Your task to perform on an android device: Do I have any events this weekend? Image 0: 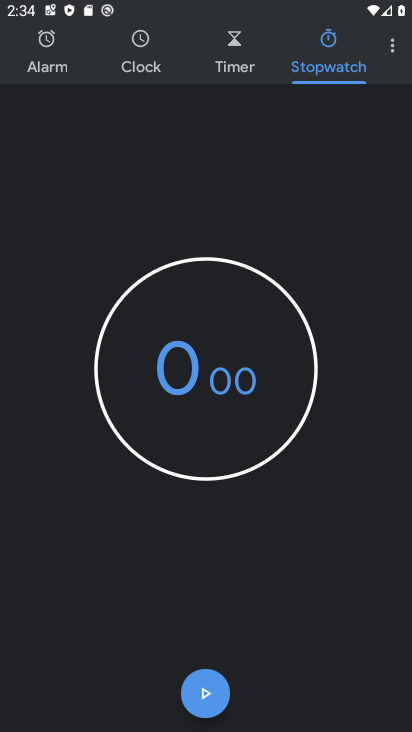
Step 0: press home button
Your task to perform on an android device: Do I have any events this weekend? Image 1: 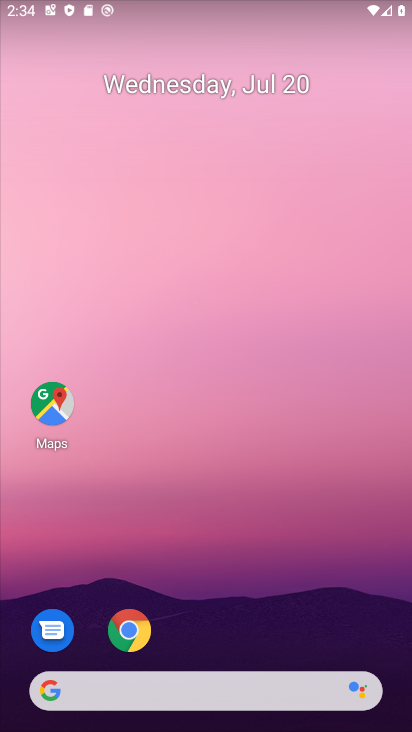
Step 1: drag from (347, 582) to (359, 129)
Your task to perform on an android device: Do I have any events this weekend? Image 2: 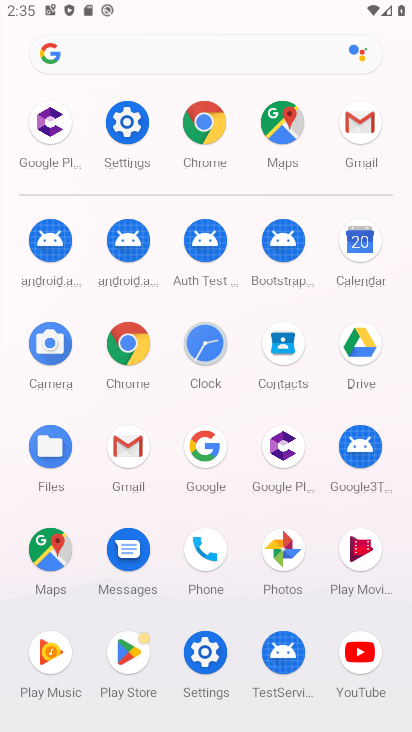
Step 2: click (364, 268)
Your task to perform on an android device: Do I have any events this weekend? Image 3: 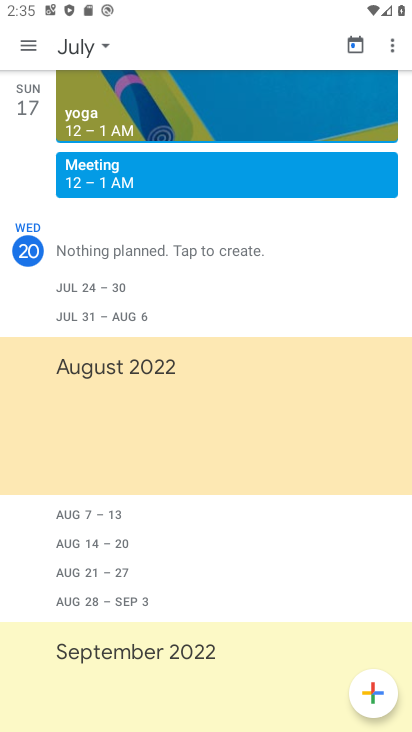
Step 3: task complete